Your task to perform on an android device: star an email in the gmail app Image 0: 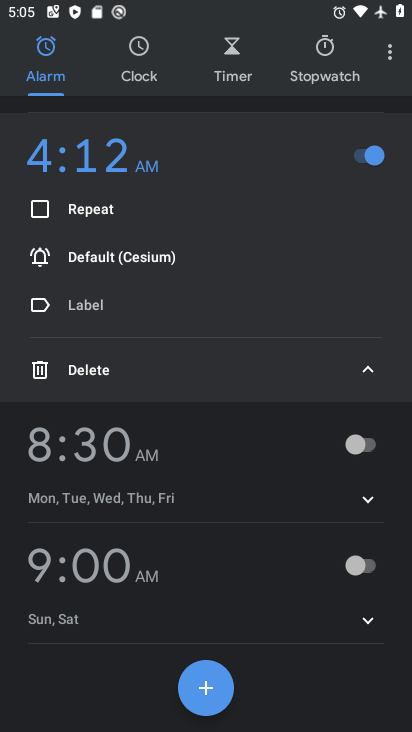
Step 0: press back button
Your task to perform on an android device: star an email in the gmail app Image 1: 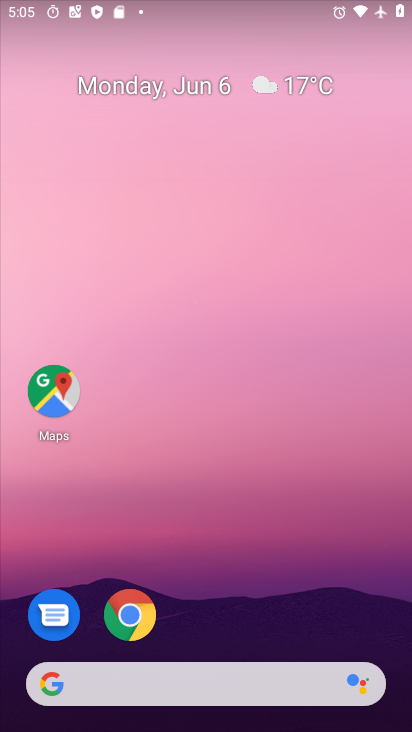
Step 1: drag from (300, 588) to (297, 28)
Your task to perform on an android device: star an email in the gmail app Image 2: 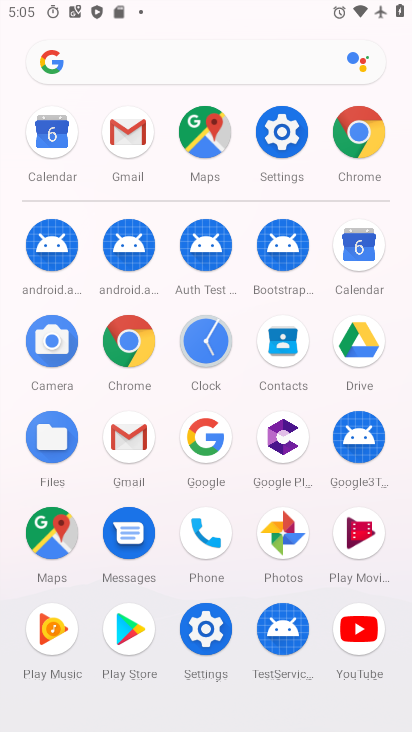
Step 2: click (131, 129)
Your task to perform on an android device: star an email in the gmail app Image 3: 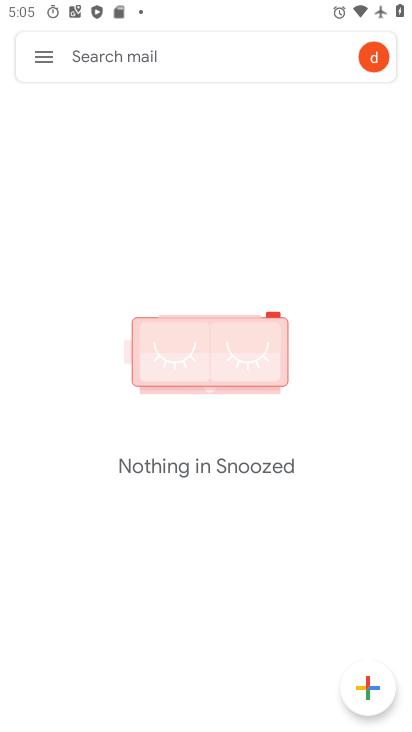
Step 3: click (54, 62)
Your task to perform on an android device: star an email in the gmail app Image 4: 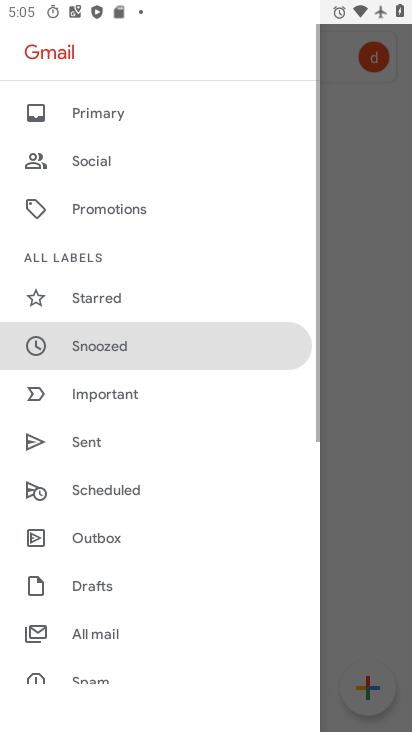
Step 4: drag from (236, 226) to (186, 525)
Your task to perform on an android device: star an email in the gmail app Image 5: 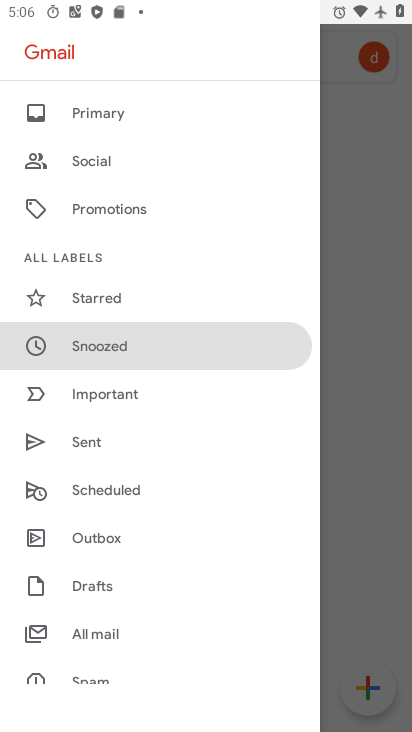
Step 5: click (94, 292)
Your task to perform on an android device: star an email in the gmail app Image 6: 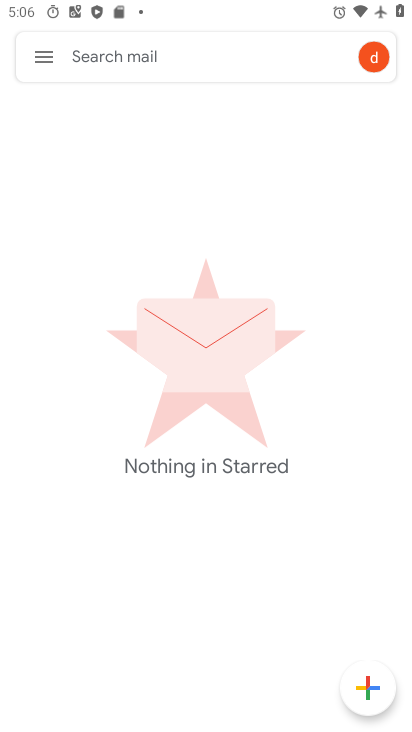
Step 6: task complete